Your task to perform on an android device: turn off picture-in-picture Image 0: 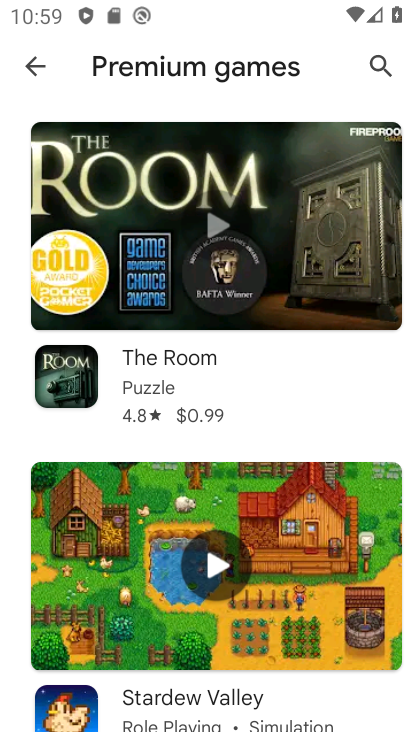
Step 0: press home button
Your task to perform on an android device: turn off picture-in-picture Image 1: 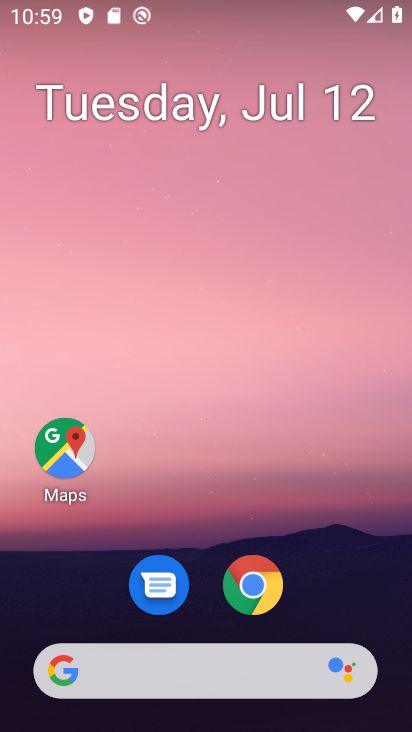
Step 1: click (264, 603)
Your task to perform on an android device: turn off picture-in-picture Image 2: 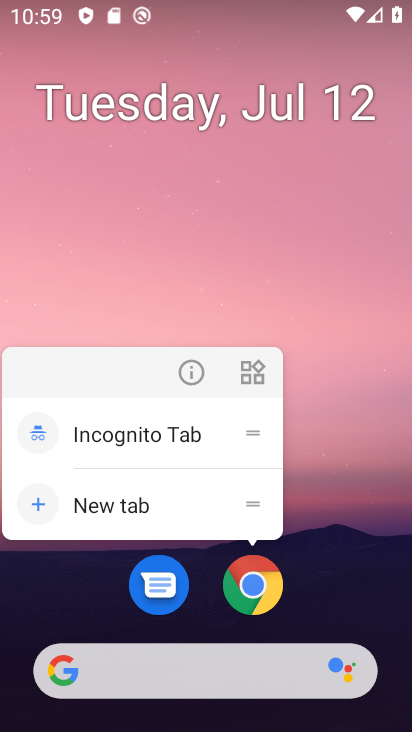
Step 2: click (193, 375)
Your task to perform on an android device: turn off picture-in-picture Image 3: 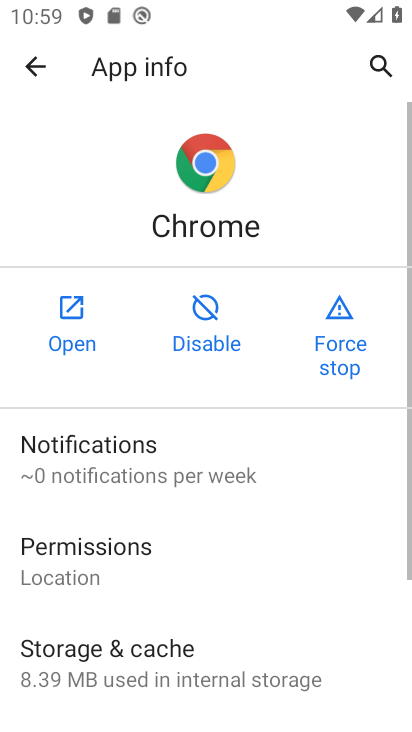
Step 3: drag from (219, 560) to (208, 120)
Your task to perform on an android device: turn off picture-in-picture Image 4: 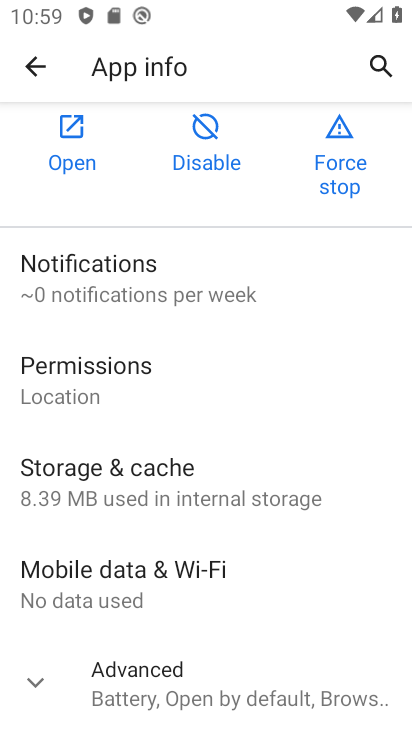
Step 4: click (38, 678)
Your task to perform on an android device: turn off picture-in-picture Image 5: 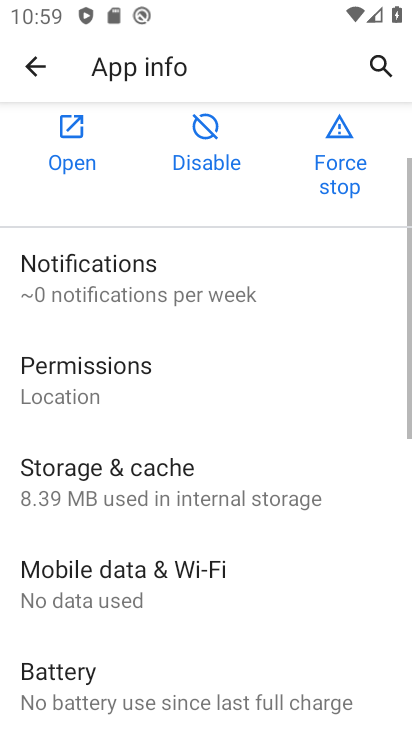
Step 5: drag from (232, 603) to (242, 130)
Your task to perform on an android device: turn off picture-in-picture Image 6: 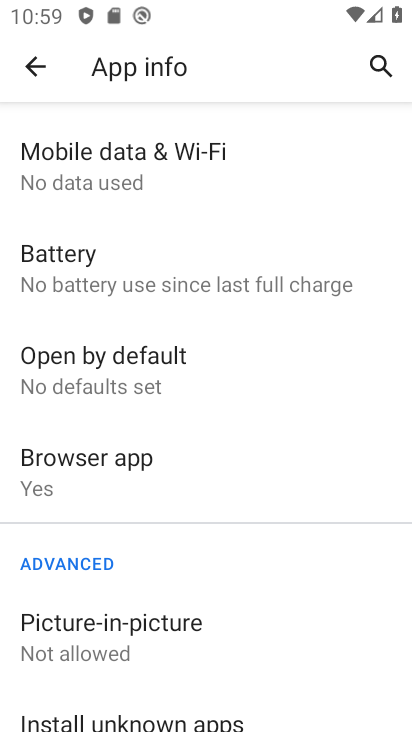
Step 6: click (180, 640)
Your task to perform on an android device: turn off picture-in-picture Image 7: 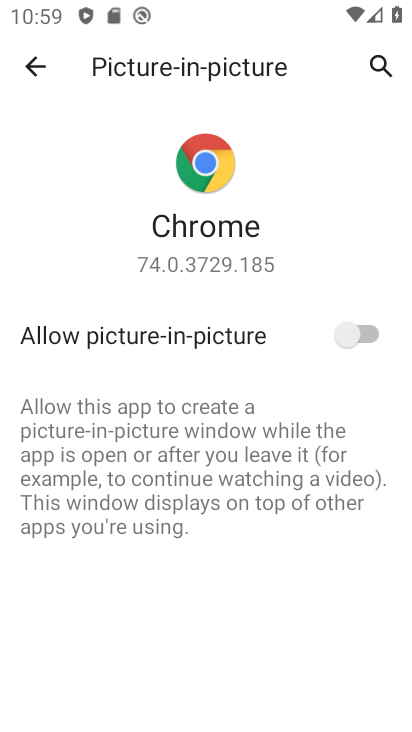
Step 7: task complete